Your task to perform on an android device: turn off sleep mode Image 0: 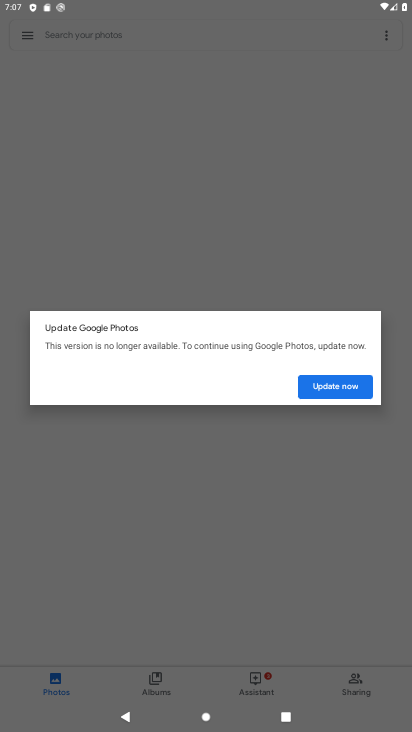
Step 0: press home button
Your task to perform on an android device: turn off sleep mode Image 1: 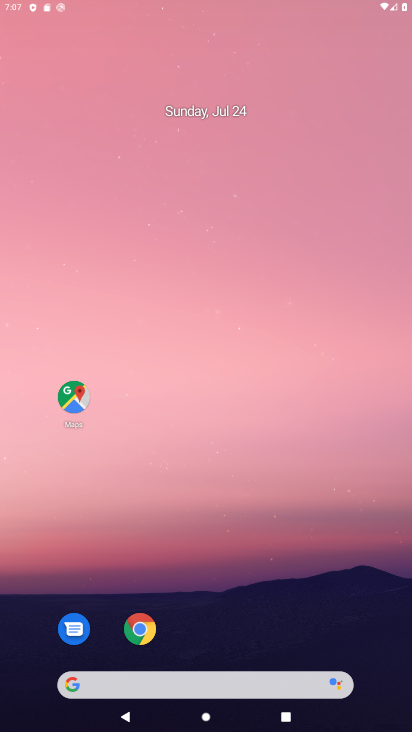
Step 1: drag from (386, 648) to (171, 43)
Your task to perform on an android device: turn off sleep mode Image 2: 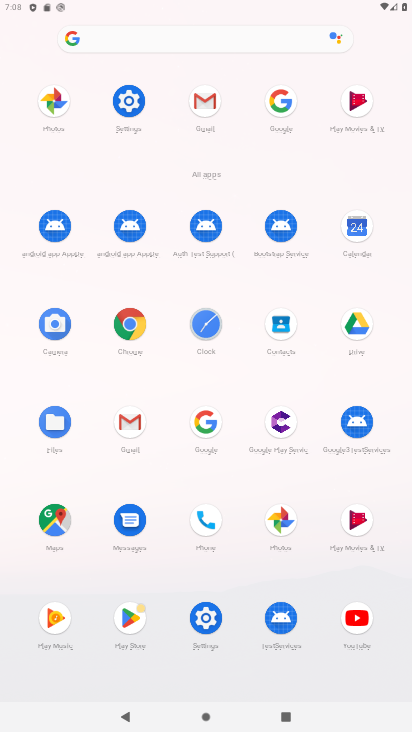
Step 2: click (208, 630)
Your task to perform on an android device: turn off sleep mode Image 3: 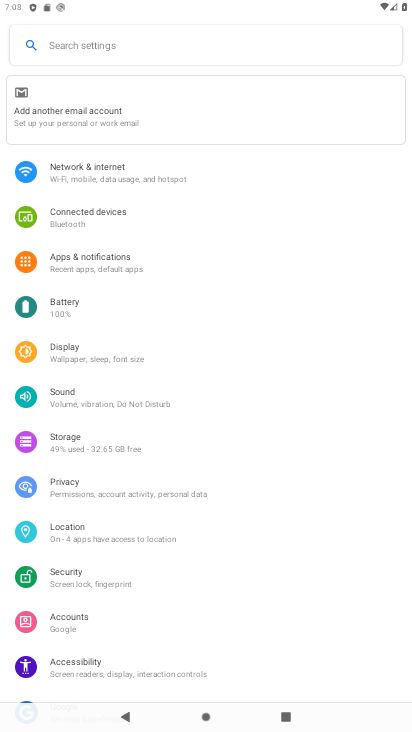
Step 3: task complete